Your task to perform on an android device: Show the shopping cart on walmart. Image 0: 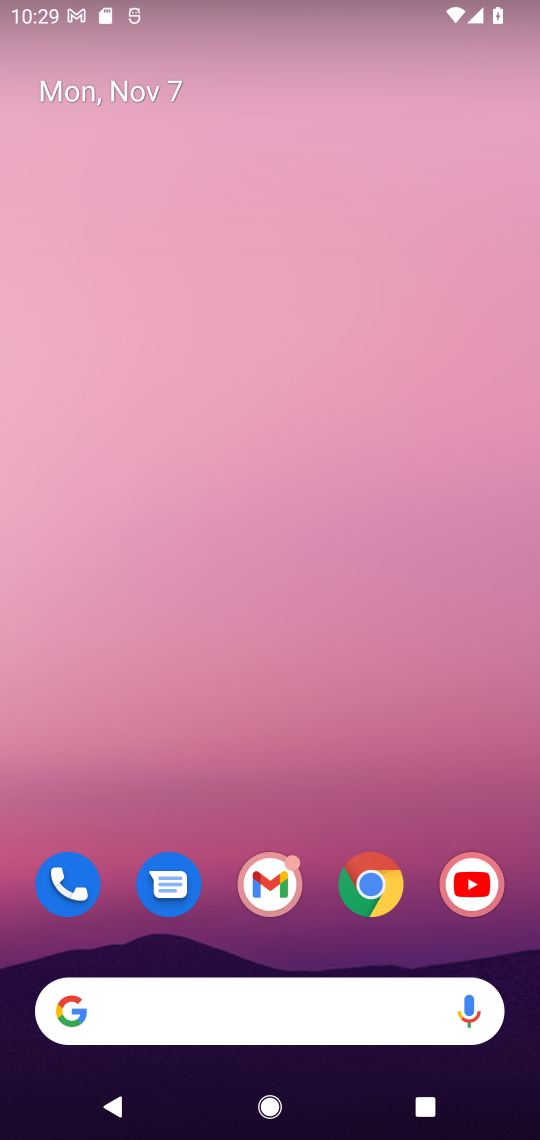
Step 0: click (368, 876)
Your task to perform on an android device: Show the shopping cart on walmart. Image 1: 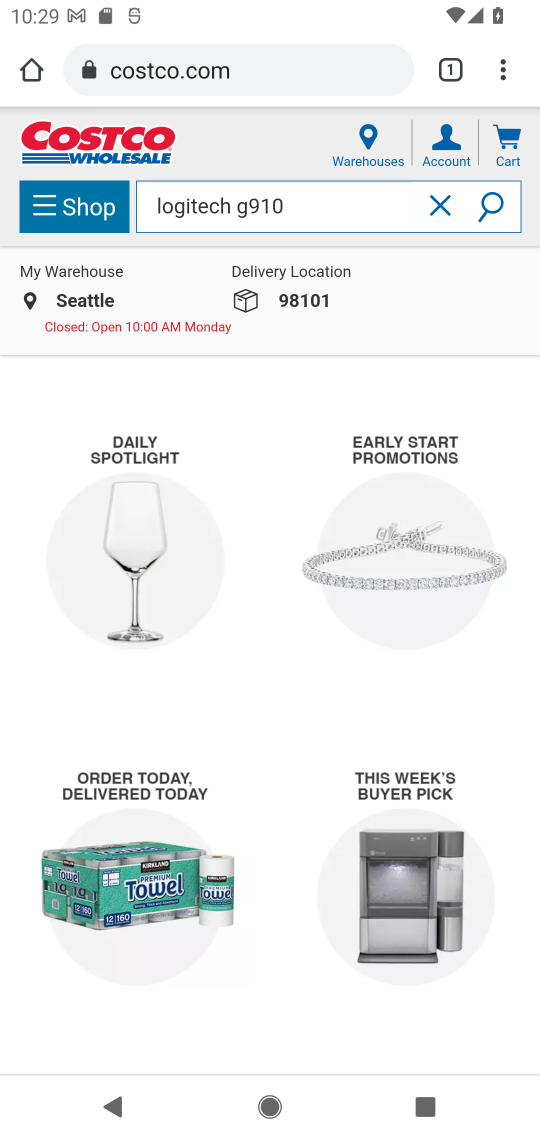
Step 1: click (287, 64)
Your task to perform on an android device: Show the shopping cart on walmart. Image 2: 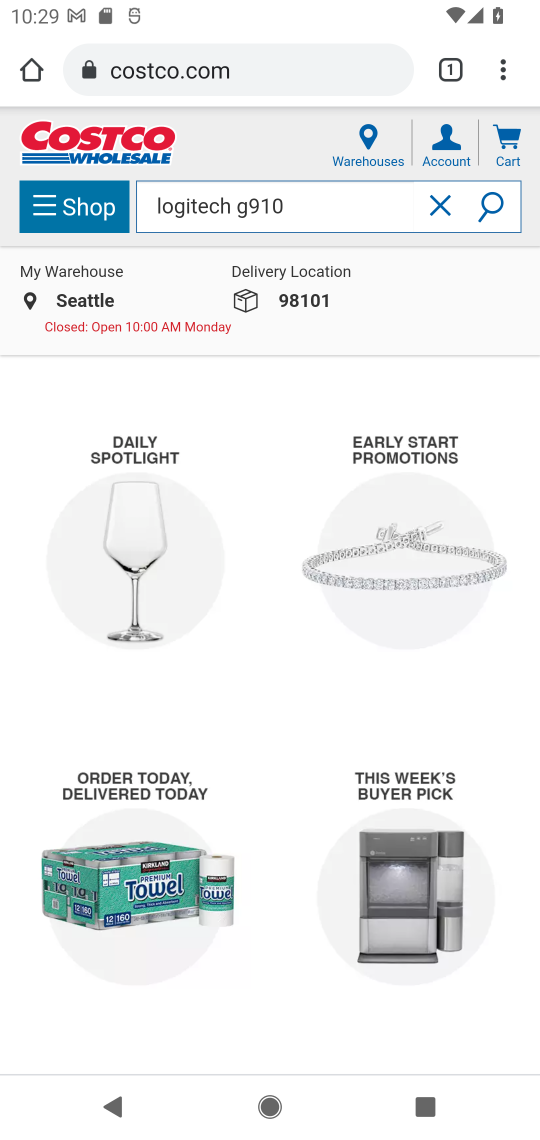
Step 2: click (287, 64)
Your task to perform on an android device: Show the shopping cart on walmart. Image 3: 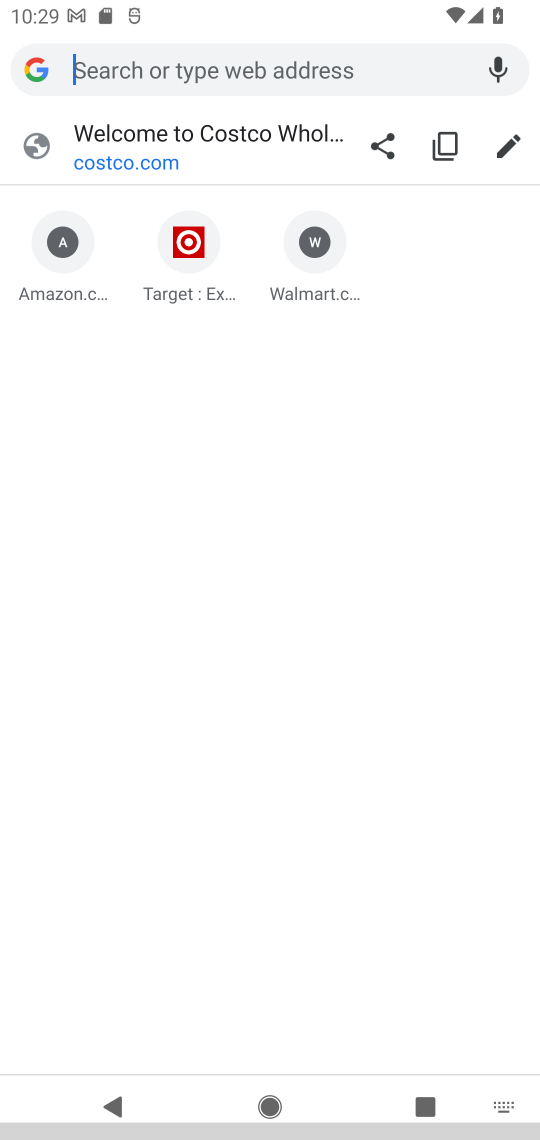
Step 3: click (287, 64)
Your task to perform on an android device: Show the shopping cart on walmart. Image 4: 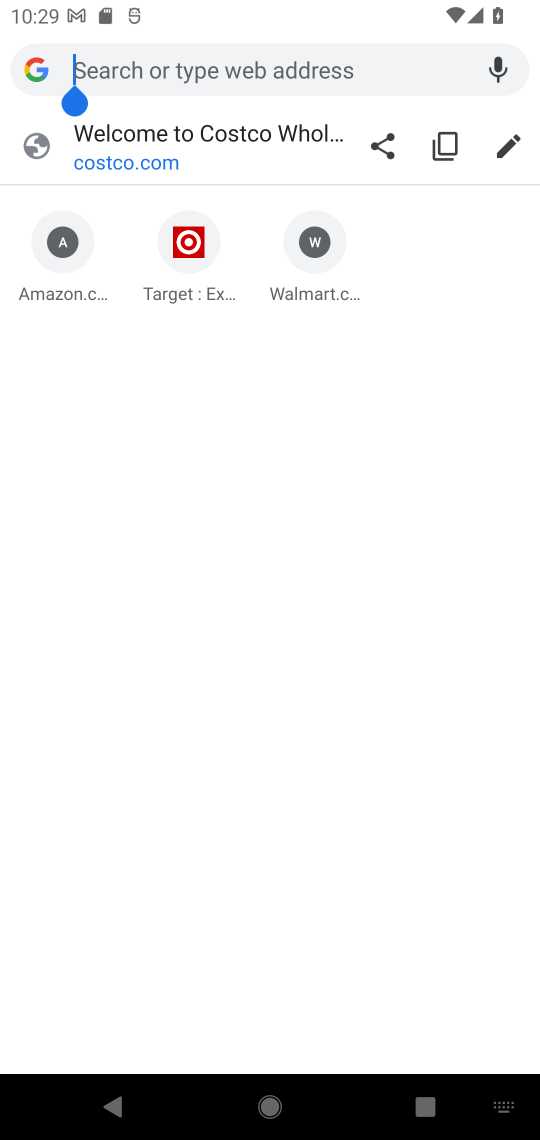
Step 4: click (323, 234)
Your task to perform on an android device: Show the shopping cart on walmart. Image 5: 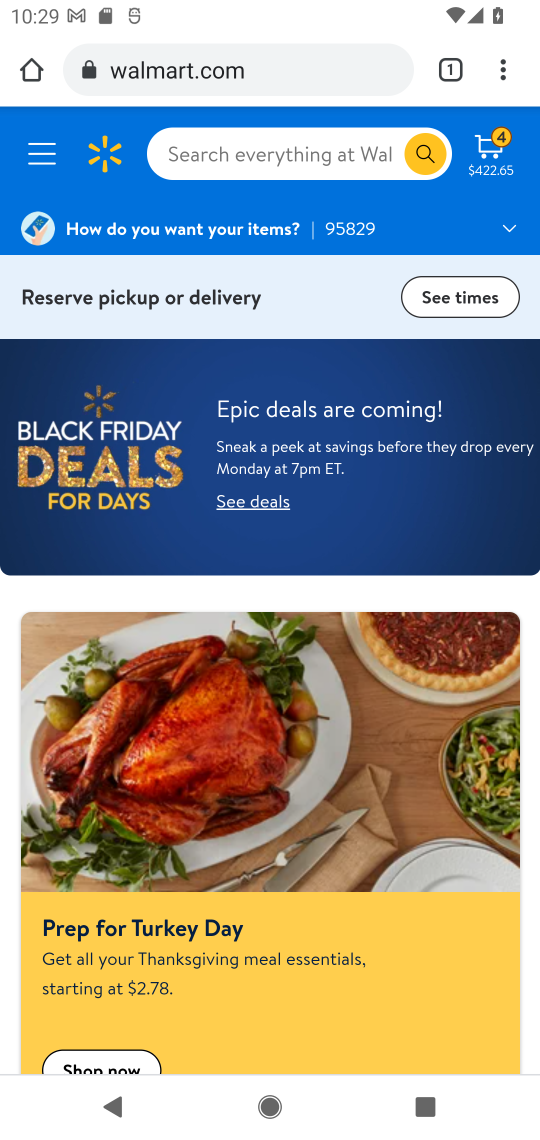
Step 5: click (492, 152)
Your task to perform on an android device: Show the shopping cart on walmart. Image 6: 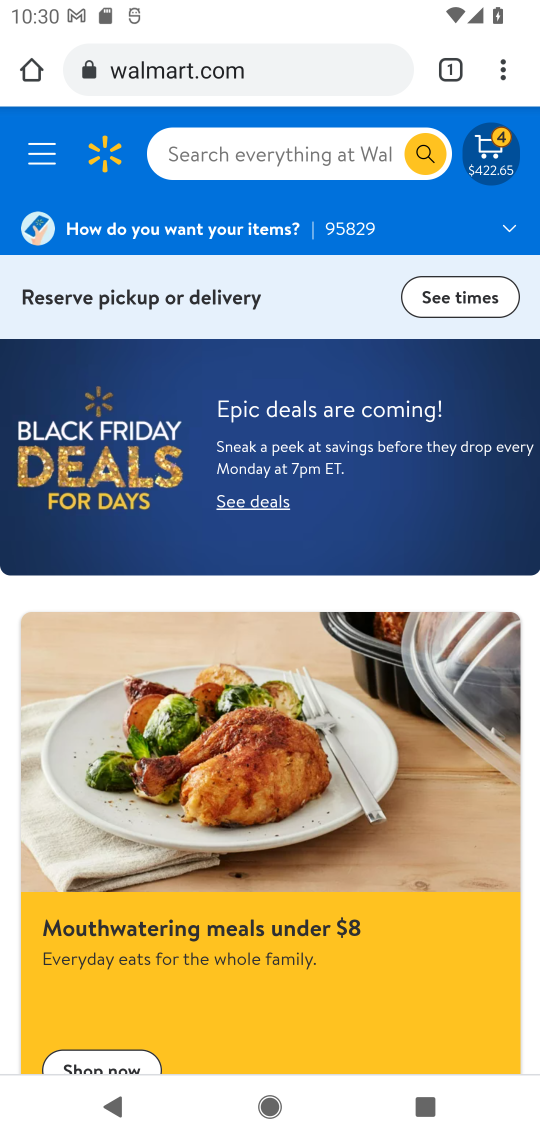
Step 6: click (492, 152)
Your task to perform on an android device: Show the shopping cart on walmart. Image 7: 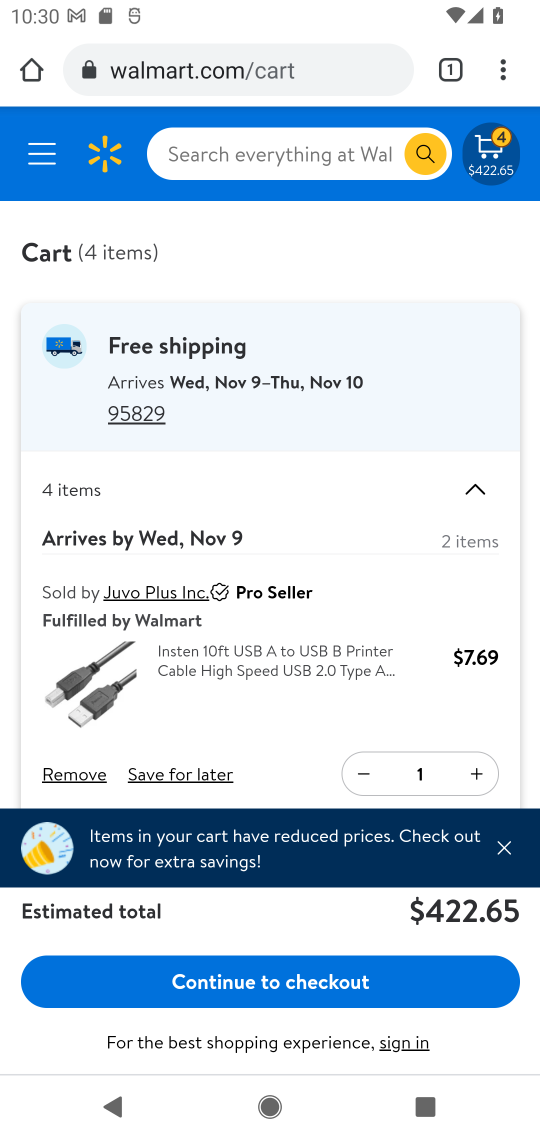
Step 7: task complete